Your task to perform on an android device: open a bookmark in the chrome app Image 0: 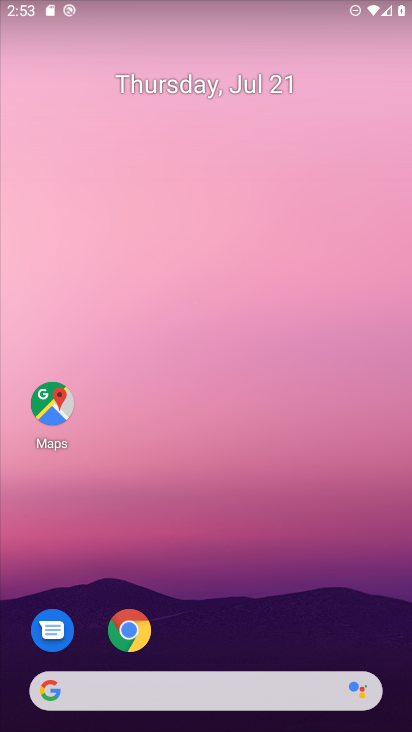
Step 0: click (123, 656)
Your task to perform on an android device: open a bookmark in the chrome app Image 1: 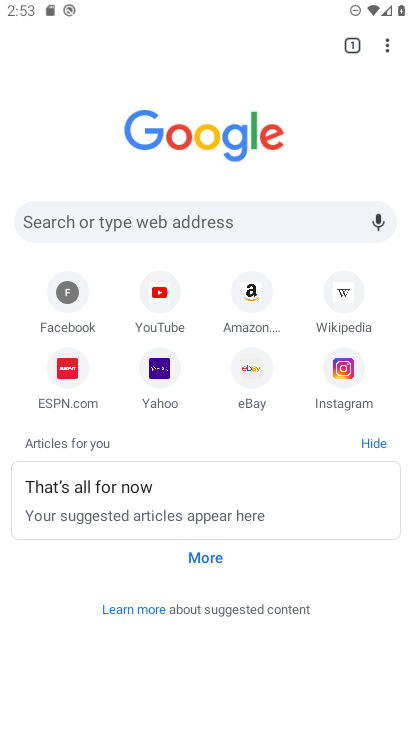
Step 1: drag from (387, 43) to (245, 163)
Your task to perform on an android device: open a bookmark in the chrome app Image 2: 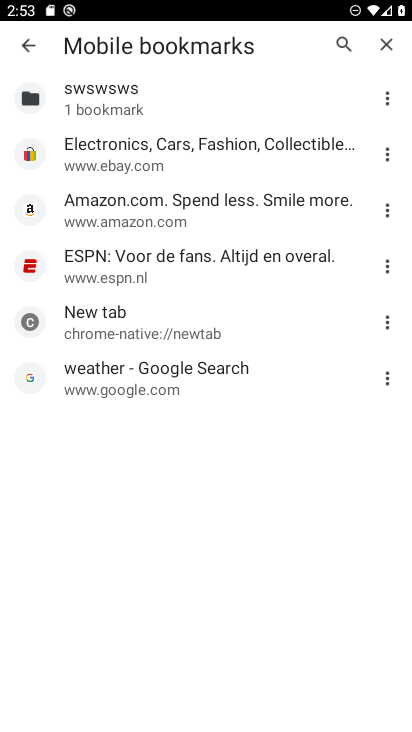
Step 2: click (191, 149)
Your task to perform on an android device: open a bookmark in the chrome app Image 3: 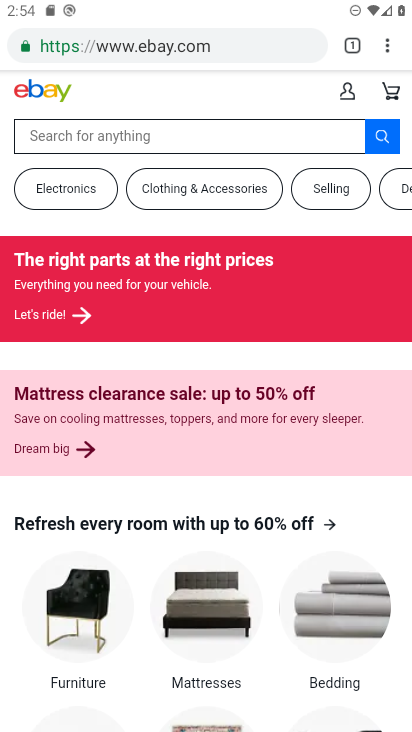
Step 3: task complete